Your task to perform on an android device: turn off wifi Image 0: 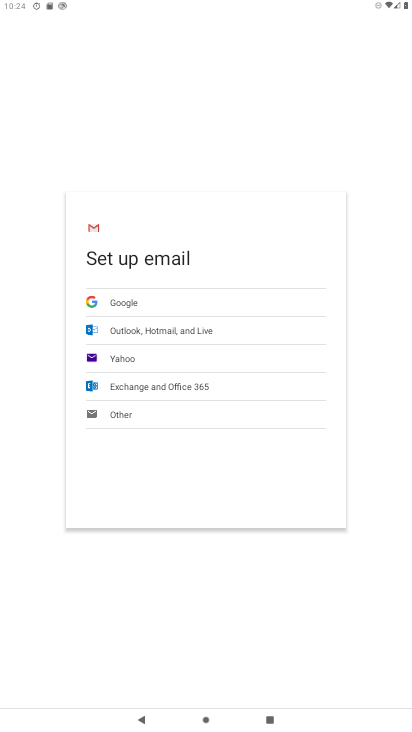
Step 0: press home button
Your task to perform on an android device: turn off wifi Image 1: 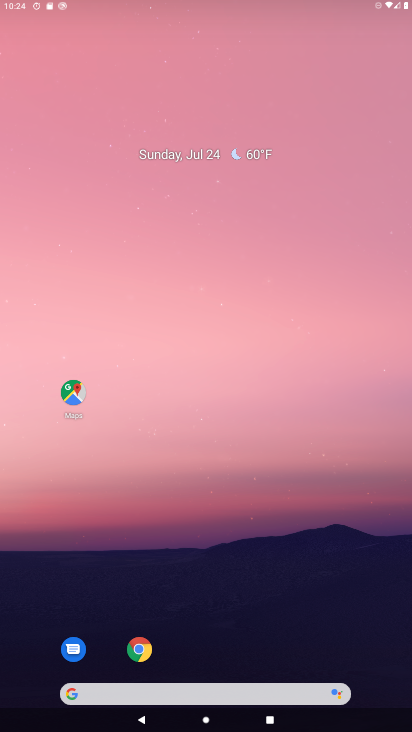
Step 1: drag from (283, 504) to (224, 54)
Your task to perform on an android device: turn off wifi Image 2: 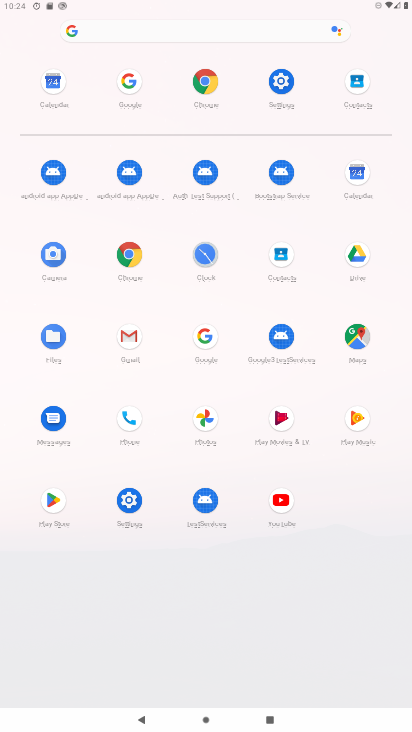
Step 2: click (287, 82)
Your task to perform on an android device: turn off wifi Image 3: 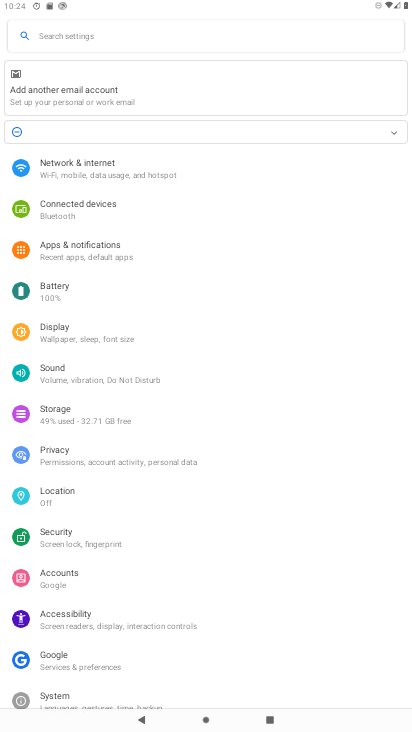
Step 3: click (119, 174)
Your task to perform on an android device: turn off wifi Image 4: 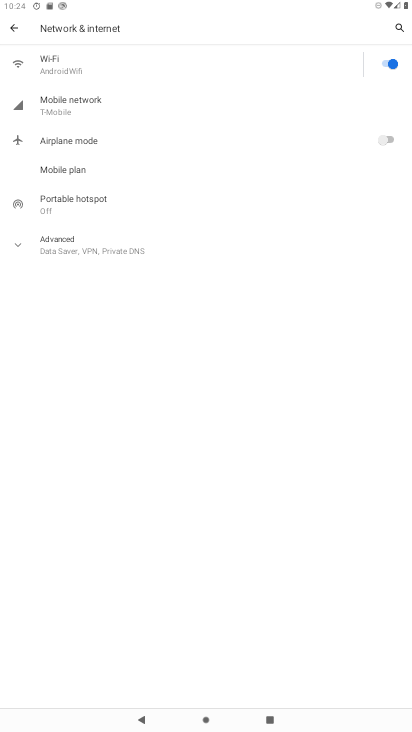
Step 4: click (376, 64)
Your task to perform on an android device: turn off wifi Image 5: 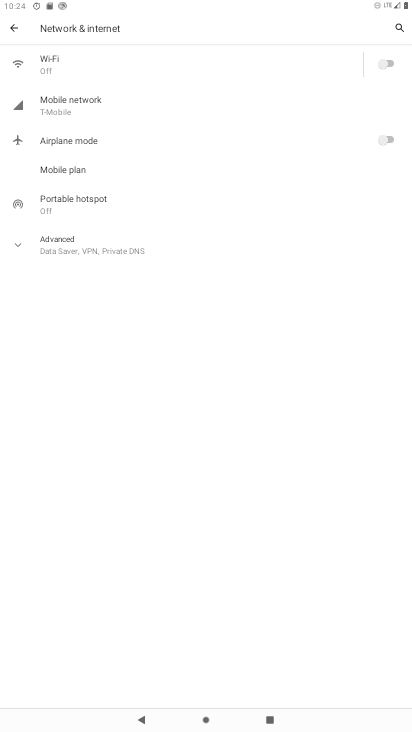
Step 5: task complete